Your task to perform on an android device: Show me the alarms in the clock app Image 0: 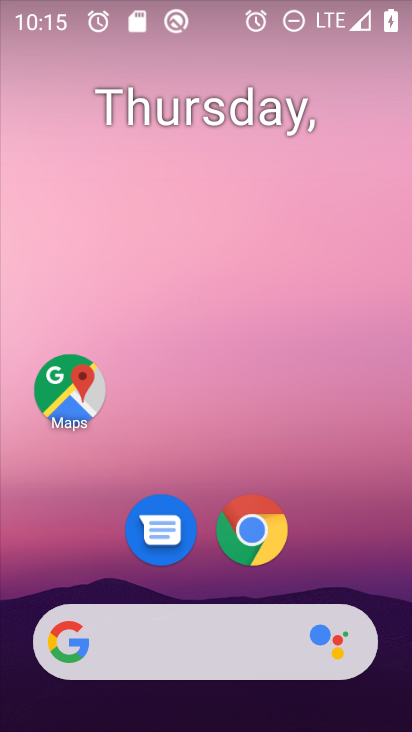
Step 0: drag from (379, 532) to (249, 48)
Your task to perform on an android device: Show me the alarms in the clock app Image 1: 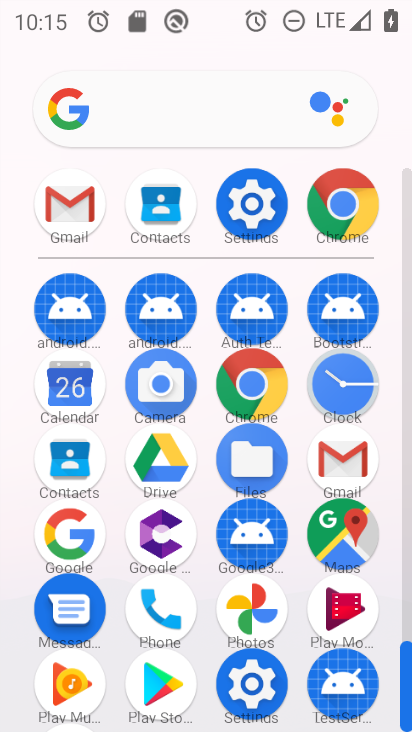
Step 1: drag from (1, 297) to (8, 237)
Your task to perform on an android device: Show me the alarms in the clock app Image 2: 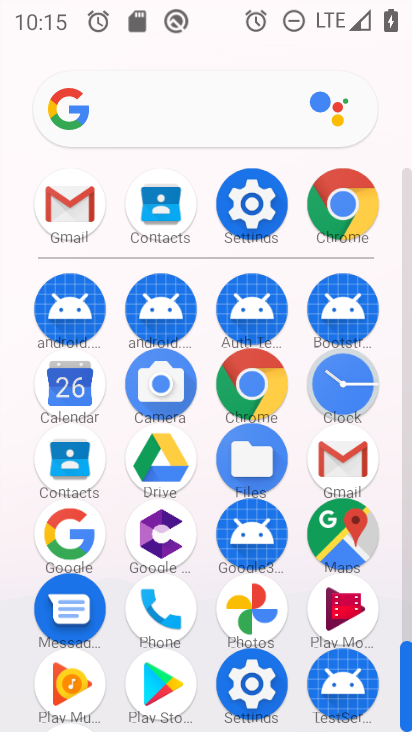
Step 2: drag from (9, 557) to (2, 274)
Your task to perform on an android device: Show me the alarms in the clock app Image 3: 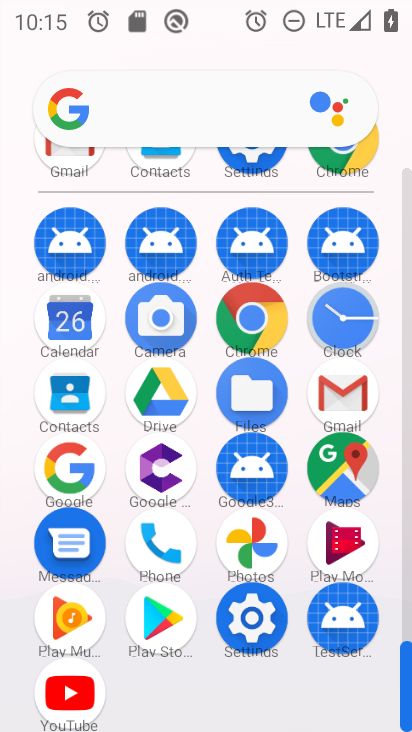
Step 3: click (344, 318)
Your task to perform on an android device: Show me the alarms in the clock app Image 4: 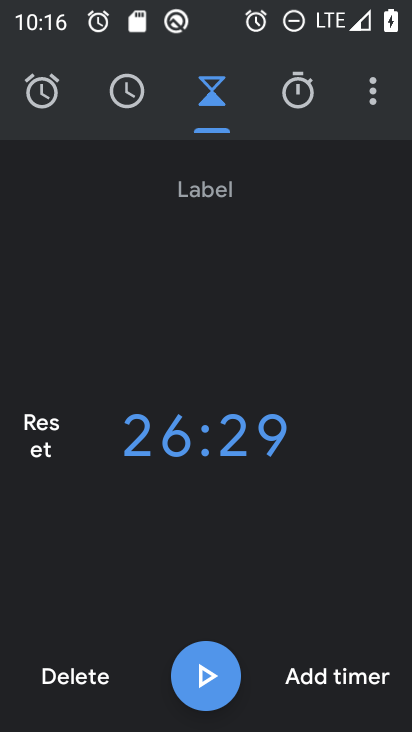
Step 4: click (20, 89)
Your task to perform on an android device: Show me the alarms in the clock app Image 5: 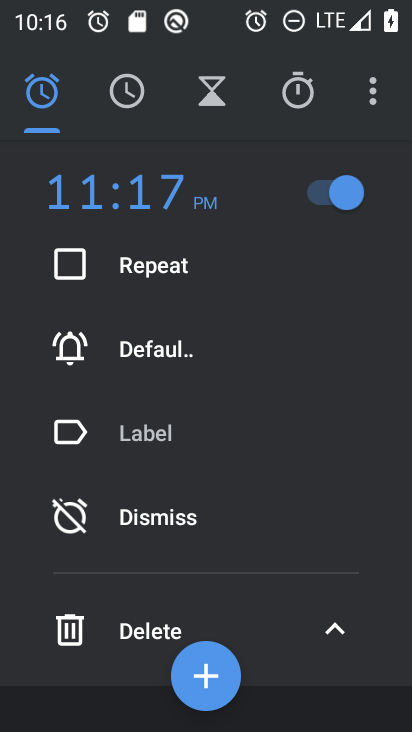
Step 5: task complete